Your task to perform on an android device: uninstall "Adobe Acrobat Reader: Edit PDF" Image 0: 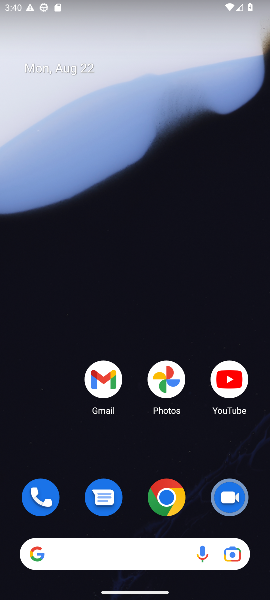
Step 0: drag from (129, 442) to (111, 60)
Your task to perform on an android device: uninstall "Adobe Acrobat Reader: Edit PDF" Image 1: 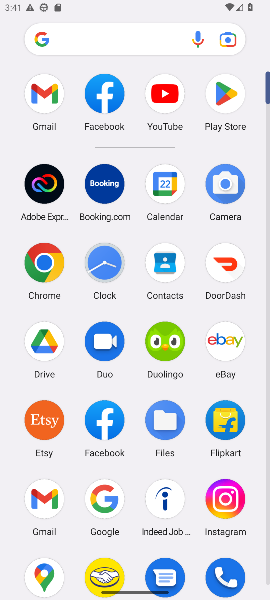
Step 1: click (229, 100)
Your task to perform on an android device: uninstall "Adobe Acrobat Reader: Edit PDF" Image 2: 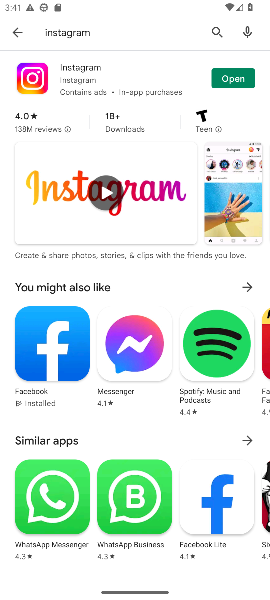
Step 2: click (219, 29)
Your task to perform on an android device: uninstall "Adobe Acrobat Reader: Edit PDF" Image 3: 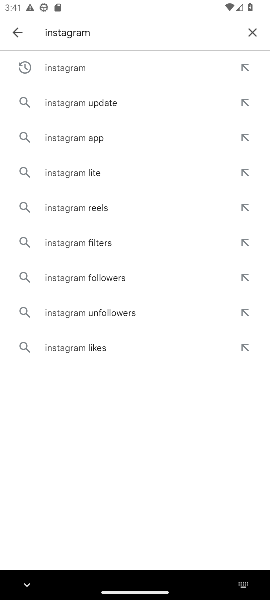
Step 3: click (257, 35)
Your task to perform on an android device: uninstall "Adobe Acrobat Reader: Edit PDF" Image 4: 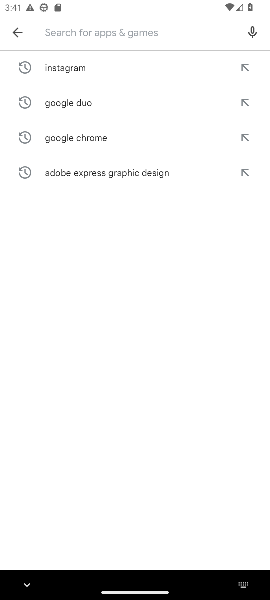
Step 4: type "Adobe Acrobat Reader: Edit PDF"
Your task to perform on an android device: uninstall "Adobe Acrobat Reader: Edit PDF" Image 5: 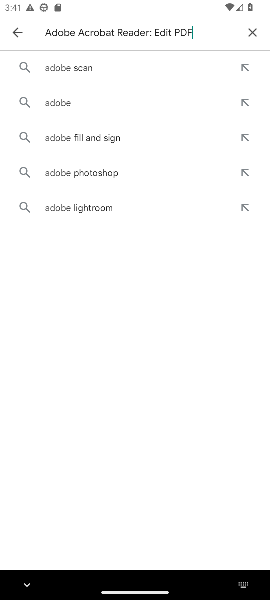
Step 5: type ""
Your task to perform on an android device: uninstall "Adobe Acrobat Reader: Edit PDF" Image 6: 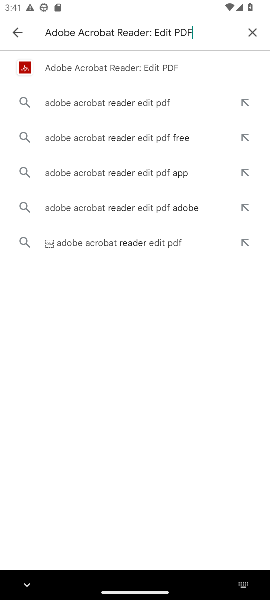
Step 6: click (101, 70)
Your task to perform on an android device: uninstall "Adobe Acrobat Reader: Edit PDF" Image 7: 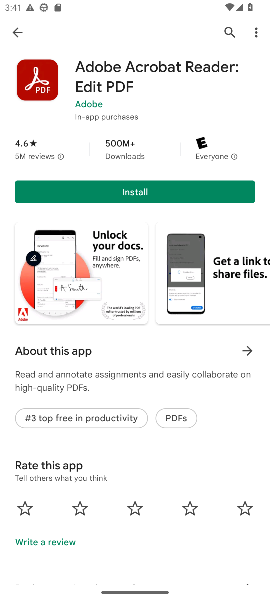
Step 7: task complete